Your task to perform on an android device: set default search engine in the chrome app Image 0: 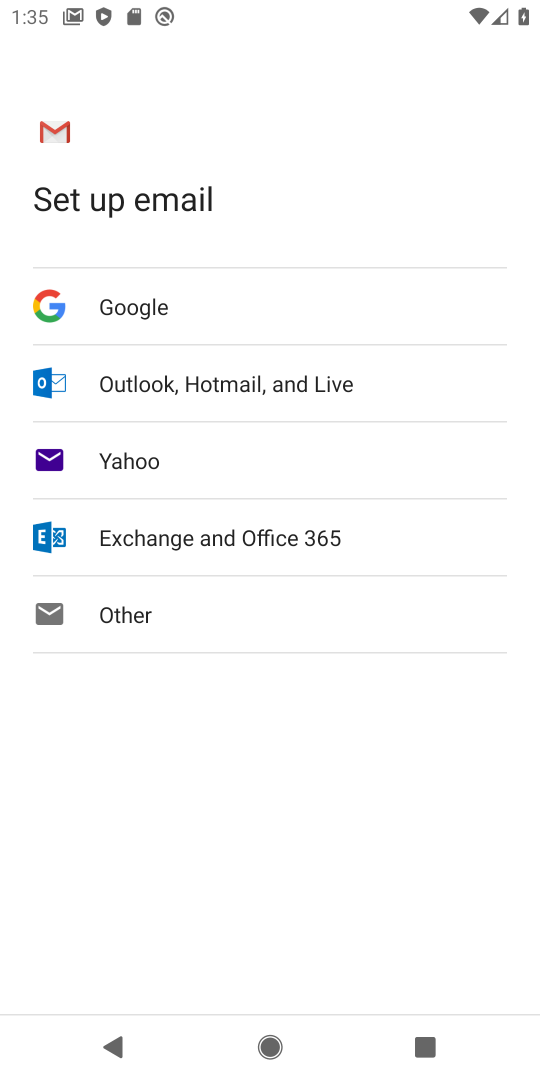
Step 0: press home button
Your task to perform on an android device: set default search engine in the chrome app Image 1: 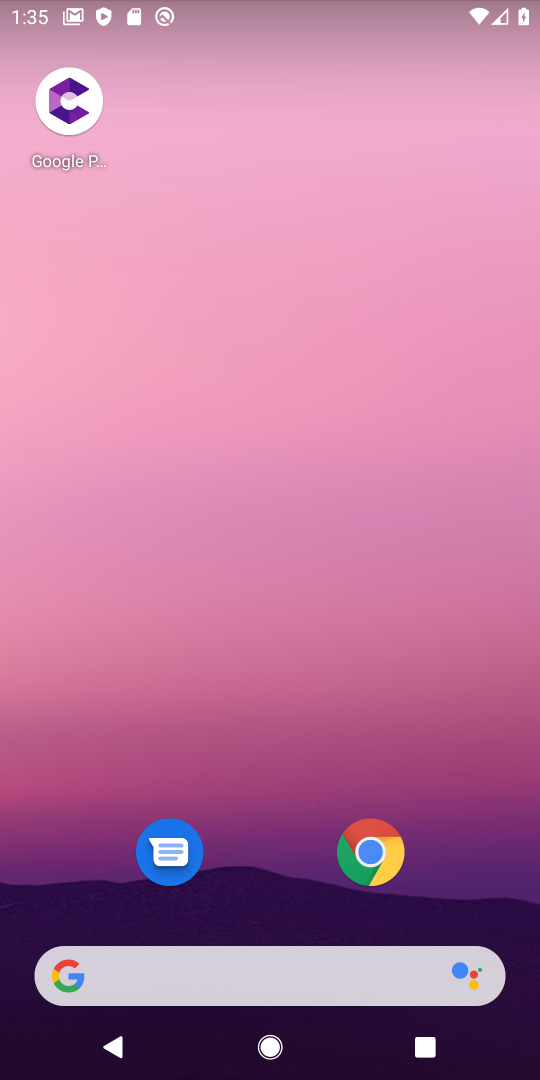
Step 1: click (372, 847)
Your task to perform on an android device: set default search engine in the chrome app Image 2: 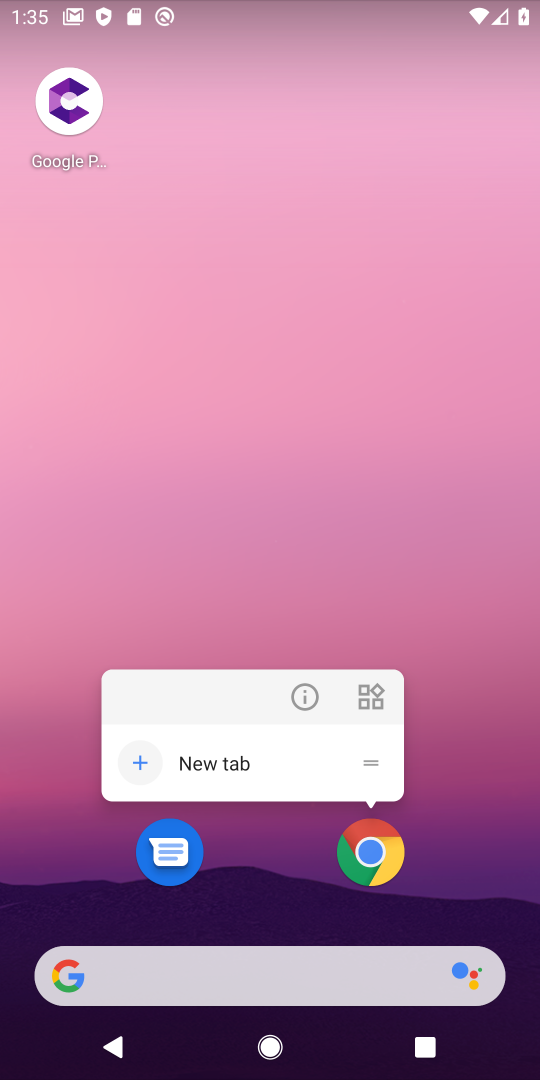
Step 2: click (372, 847)
Your task to perform on an android device: set default search engine in the chrome app Image 3: 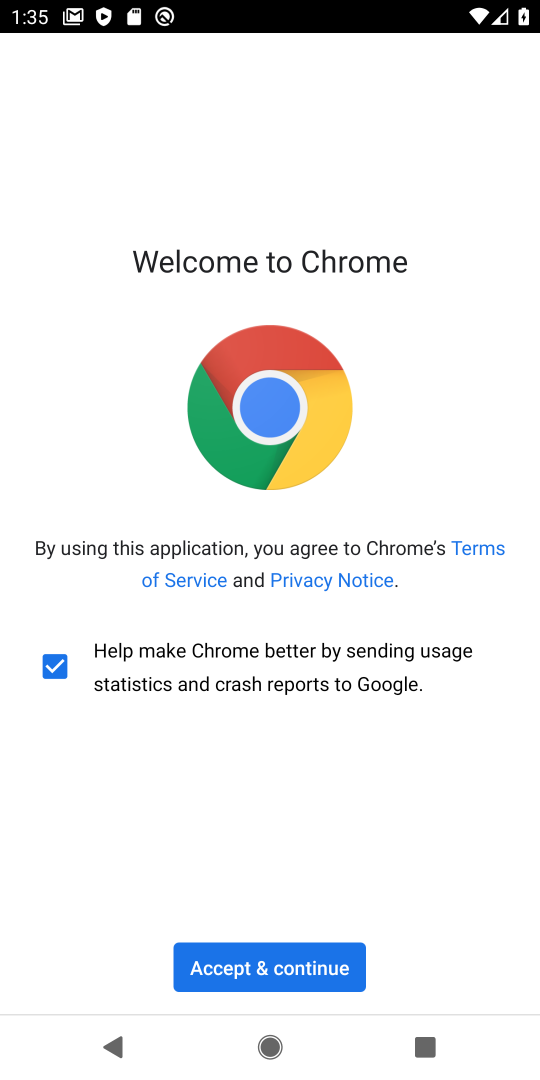
Step 3: click (267, 963)
Your task to perform on an android device: set default search engine in the chrome app Image 4: 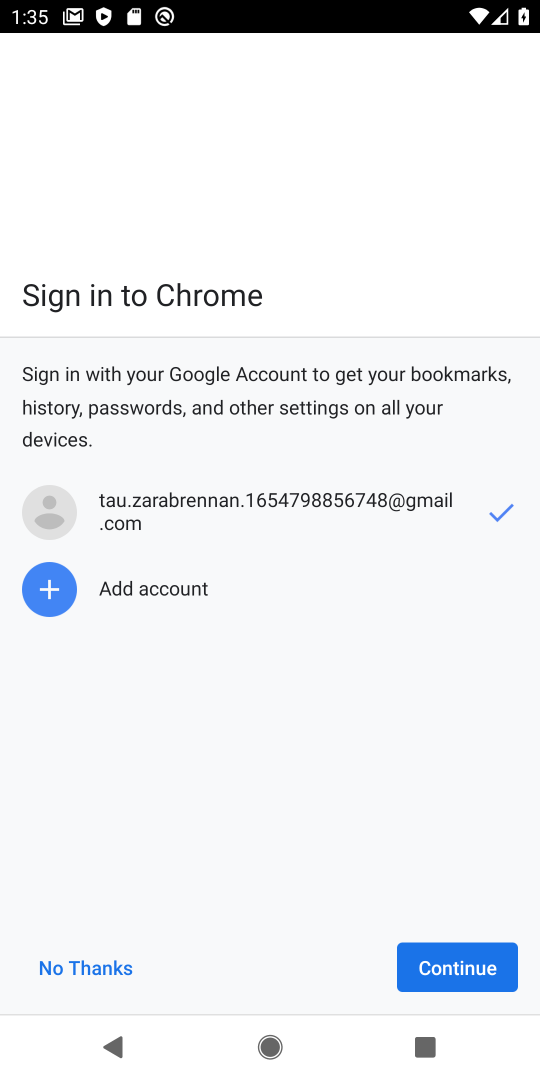
Step 4: click (454, 971)
Your task to perform on an android device: set default search engine in the chrome app Image 5: 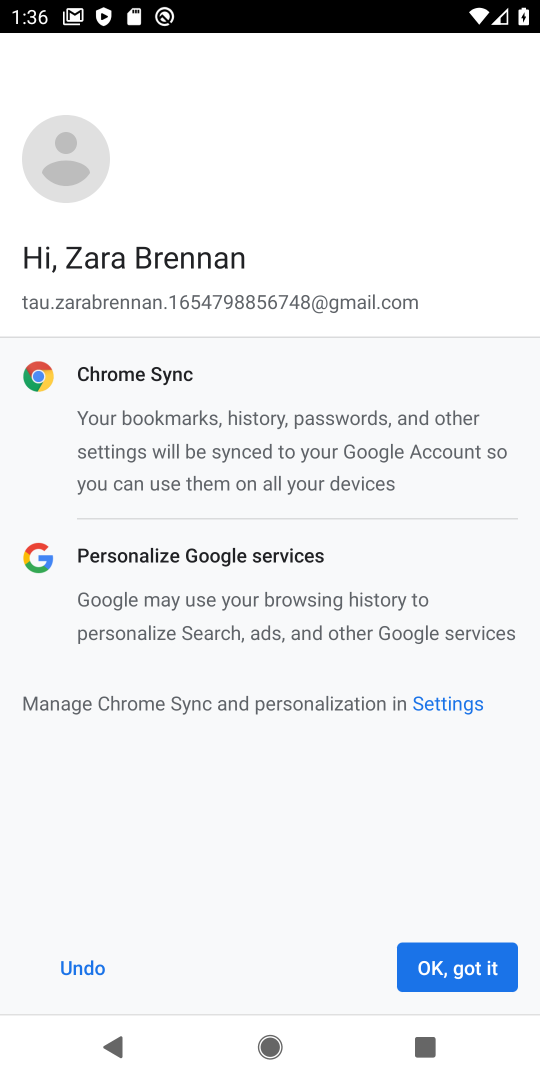
Step 5: click (454, 971)
Your task to perform on an android device: set default search engine in the chrome app Image 6: 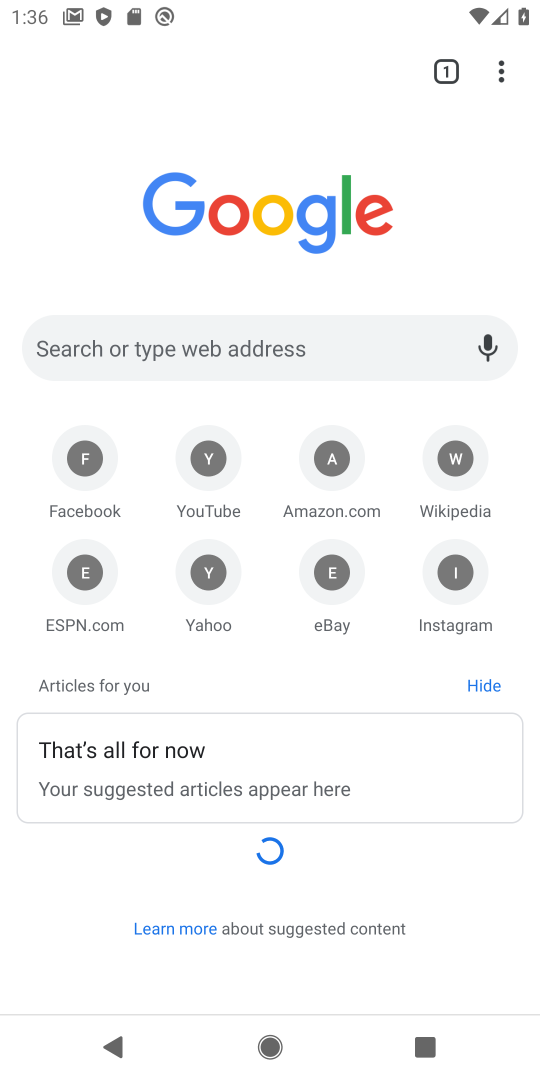
Step 6: click (507, 69)
Your task to perform on an android device: set default search engine in the chrome app Image 7: 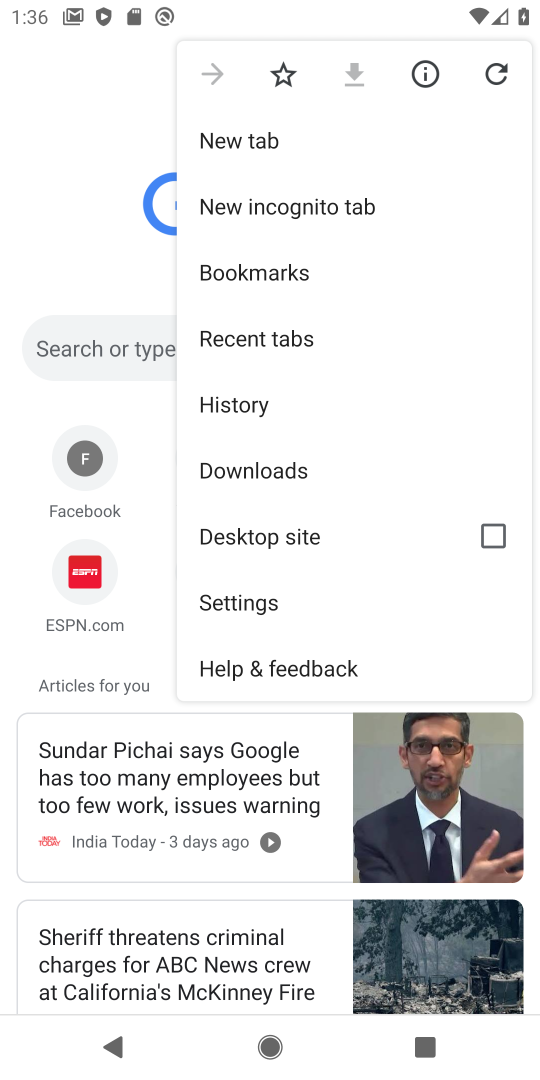
Step 7: click (247, 602)
Your task to perform on an android device: set default search engine in the chrome app Image 8: 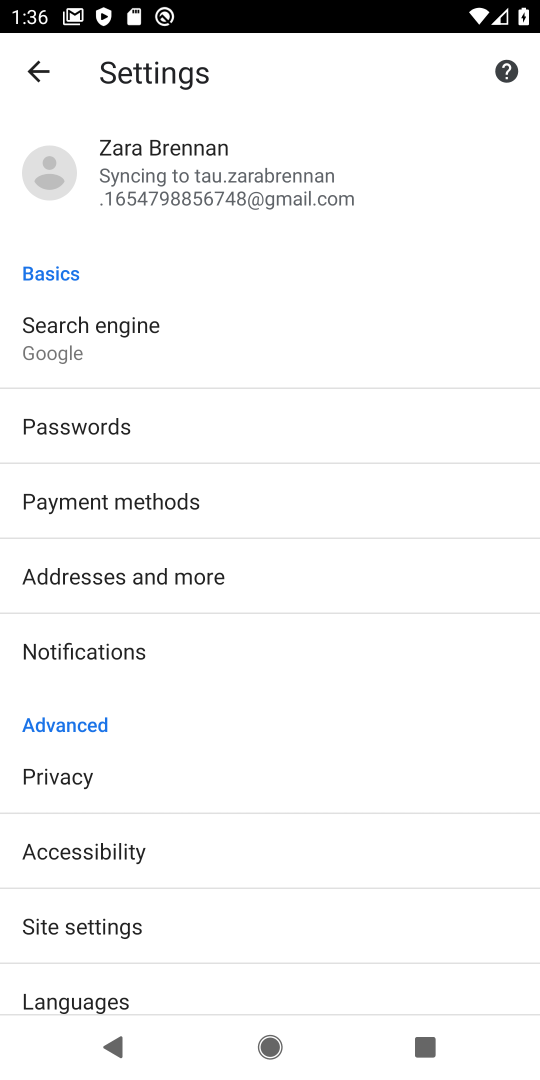
Step 8: click (115, 323)
Your task to perform on an android device: set default search engine in the chrome app Image 9: 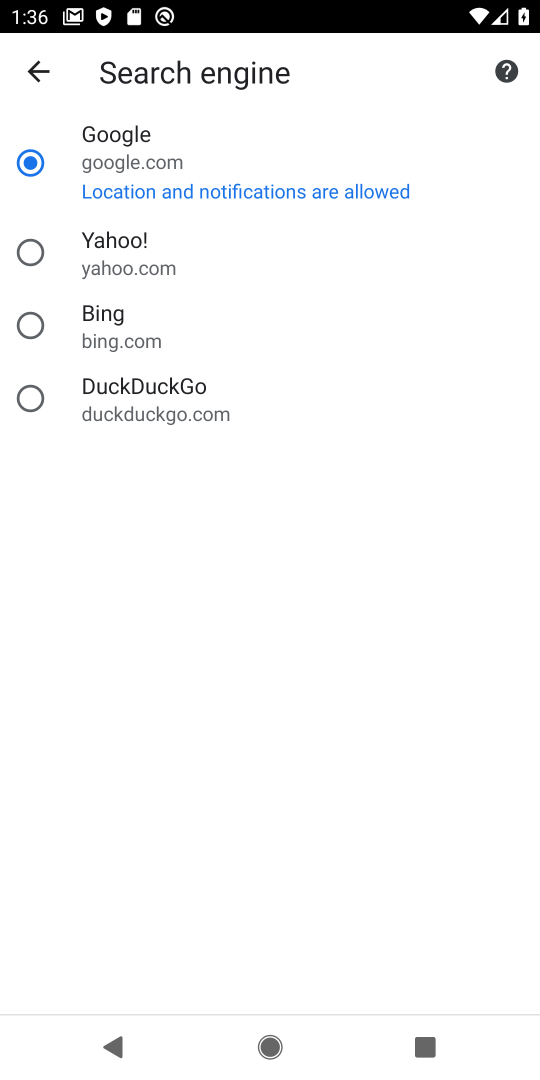
Step 9: task complete